Your task to perform on an android device: move an email to a new category in the gmail app Image 0: 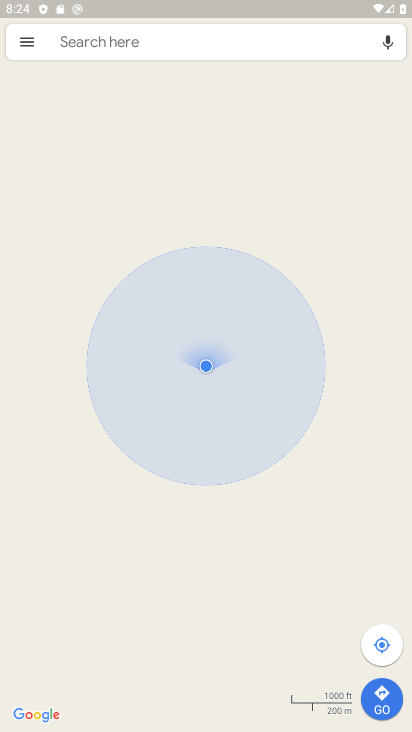
Step 0: press home button
Your task to perform on an android device: move an email to a new category in the gmail app Image 1: 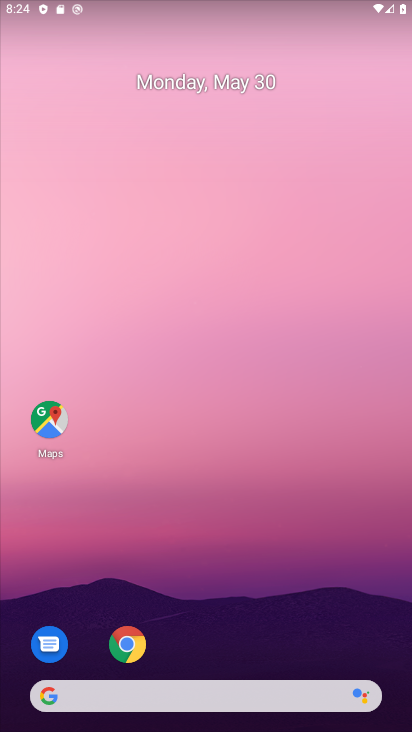
Step 1: drag from (228, 634) to (261, 65)
Your task to perform on an android device: move an email to a new category in the gmail app Image 2: 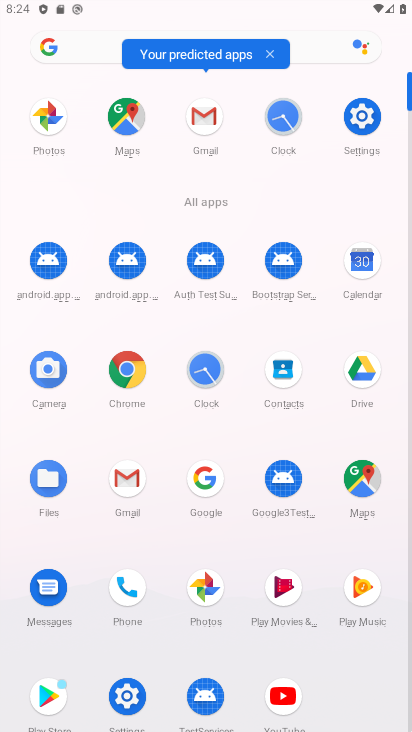
Step 2: click (205, 115)
Your task to perform on an android device: move an email to a new category in the gmail app Image 3: 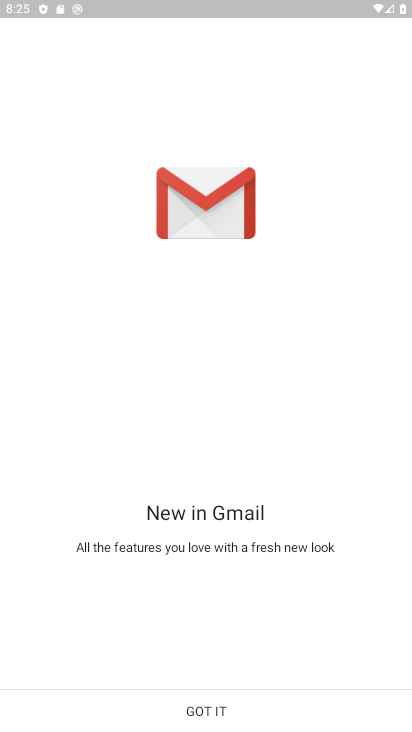
Step 3: click (226, 713)
Your task to perform on an android device: move an email to a new category in the gmail app Image 4: 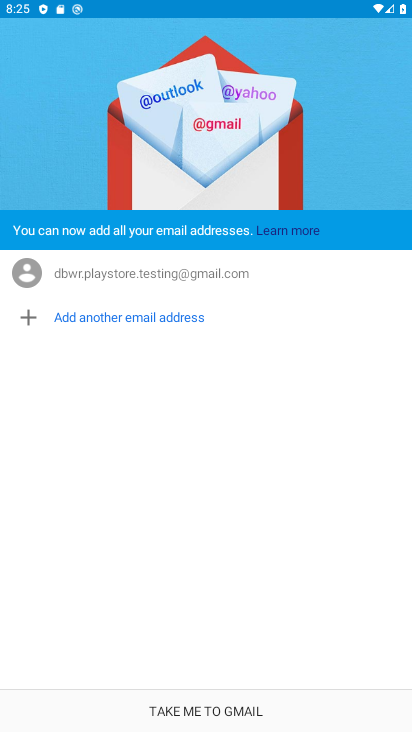
Step 4: click (191, 707)
Your task to perform on an android device: move an email to a new category in the gmail app Image 5: 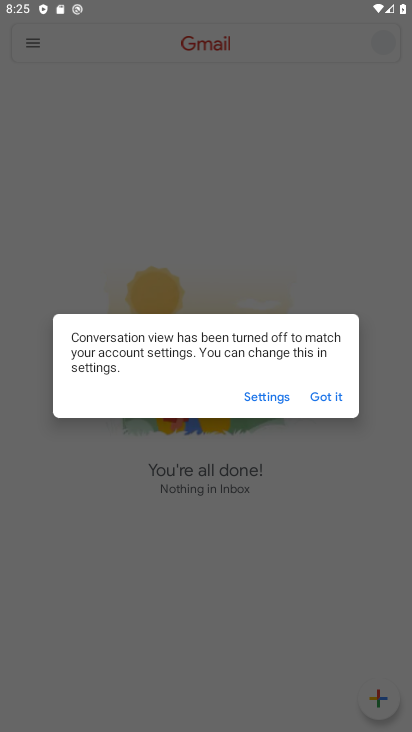
Step 5: click (324, 399)
Your task to perform on an android device: move an email to a new category in the gmail app Image 6: 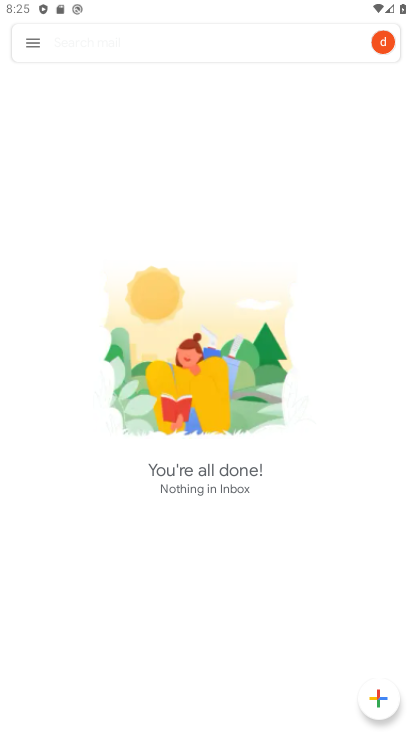
Step 6: click (39, 37)
Your task to perform on an android device: move an email to a new category in the gmail app Image 7: 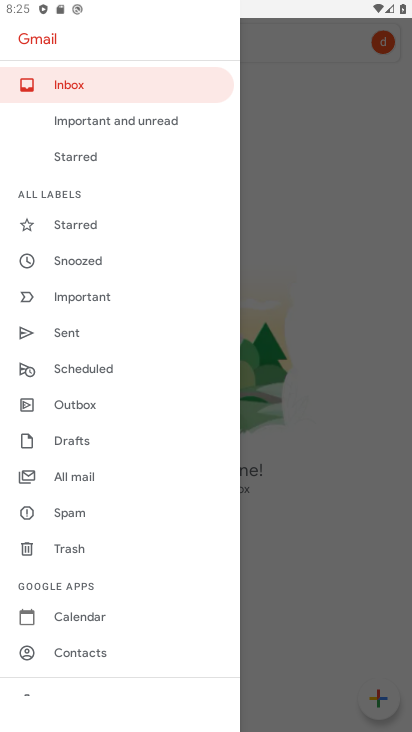
Step 7: click (88, 476)
Your task to perform on an android device: move an email to a new category in the gmail app Image 8: 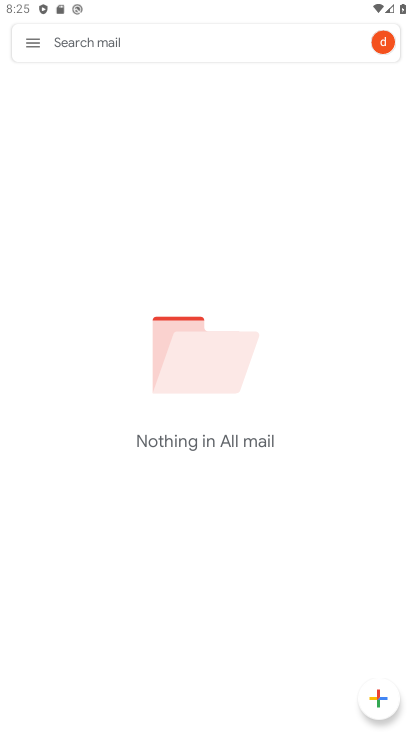
Step 8: task complete